Your task to perform on an android device: Open accessibility settings Image 0: 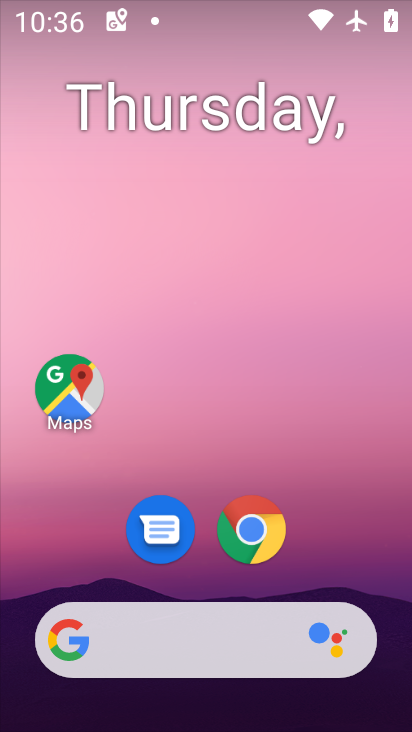
Step 0: drag from (328, 571) to (228, 46)
Your task to perform on an android device: Open accessibility settings Image 1: 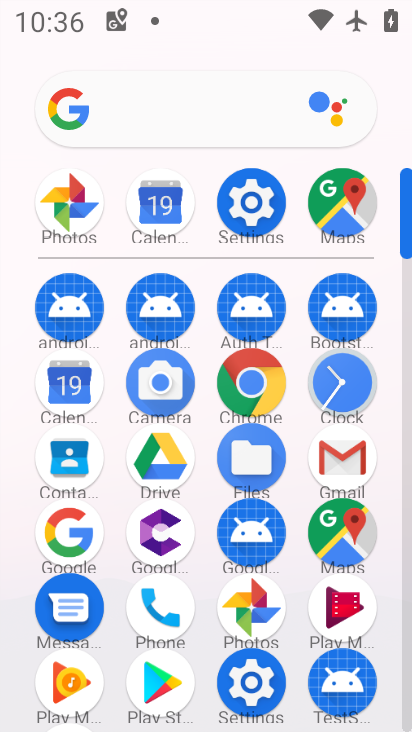
Step 1: click (248, 198)
Your task to perform on an android device: Open accessibility settings Image 2: 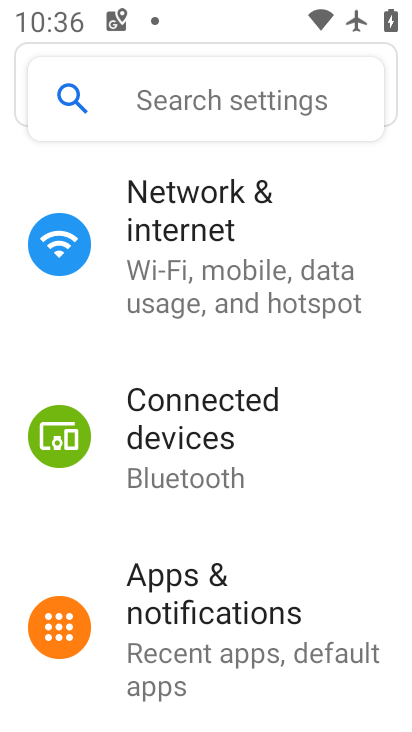
Step 2: drag from (193, 600) to (170, 294)
Your task to perform on an android device: Open accessibility settings Image 3: 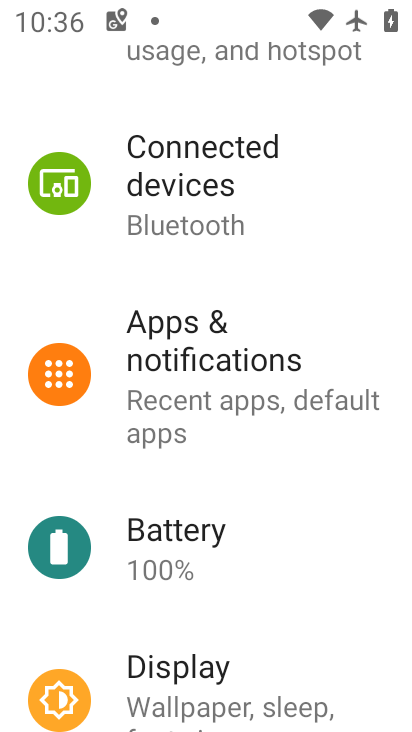
Step 3: drag from (214, 618) to (221, 407)
Your task to perform on an android device: Open accessibility settings Image 4: 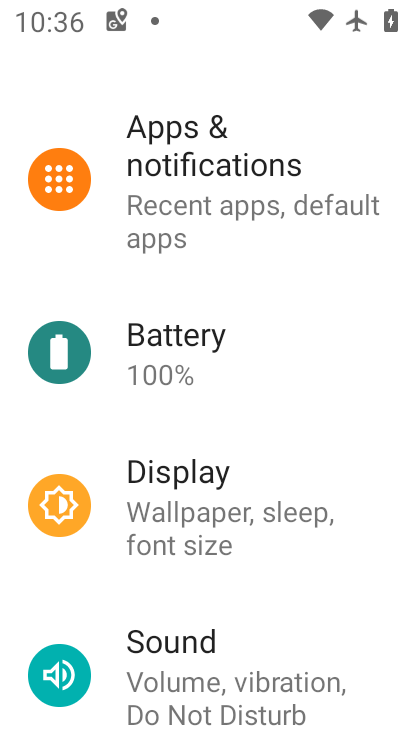
Step 4: drag from (224, 677) to (185, 474)
Your task to perform on an android device: Open accessibility settings Image 5: 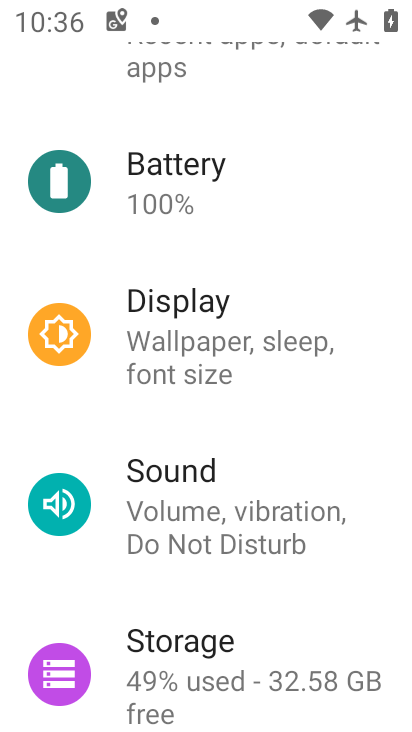
Step 5: drag from (188, 668) to (163, 449)
Your task to perform on an android device: Open accessibility settings Image 6: 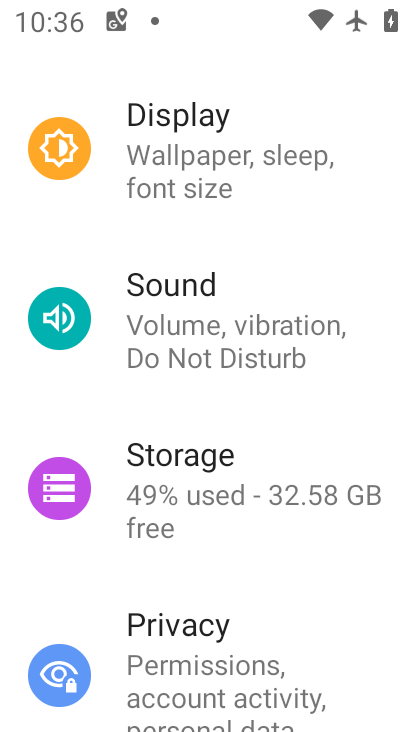
Step 6: drag from (201, 682) to (209, 475)
Your task to perform on an android device: Open accessibility settings Image 7: 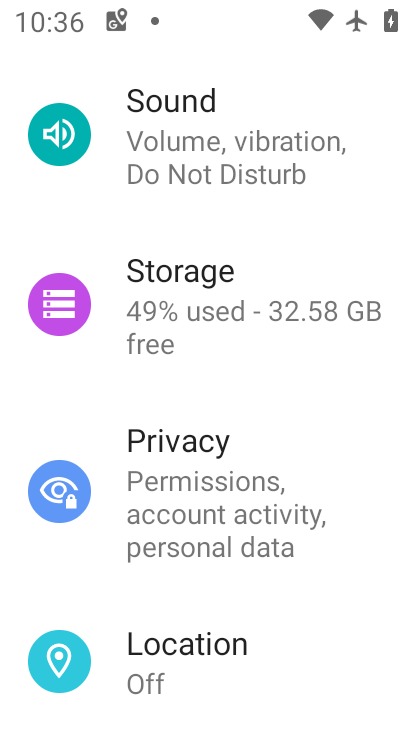
Step 7: drag from (231, 627) to (236, 397)
Your task to perform on an android device: Open accessibility settings Image 8: 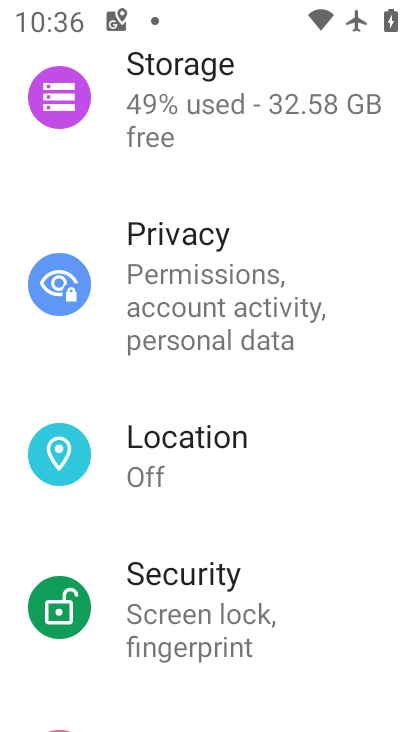
Step 8: drag from (269, 548) to (286, 328)
Your task to perform on an android device: Open accessibility settings Image 9: 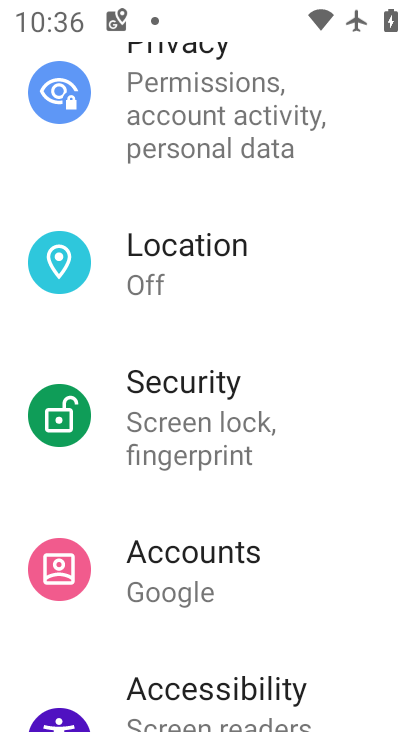
Step 9: drag from (241, 596) to (239, 204)
Your task to perform on an android device: Open accessibility settings Image 10: 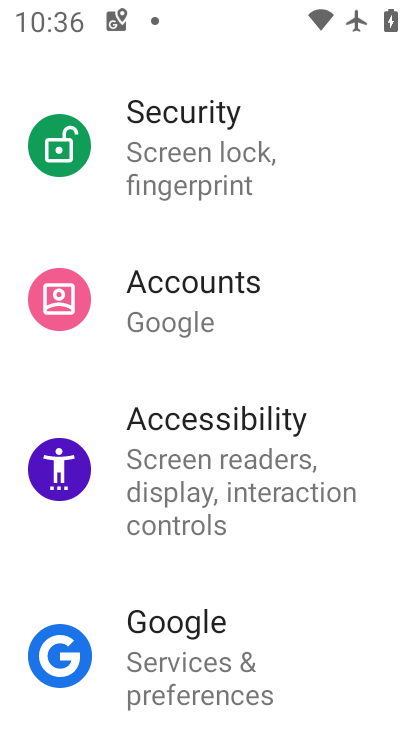
Step 10: drag from (137, 684) to (134, 528)
Your task to perform on an android device: Open accessibility settings Image 11: 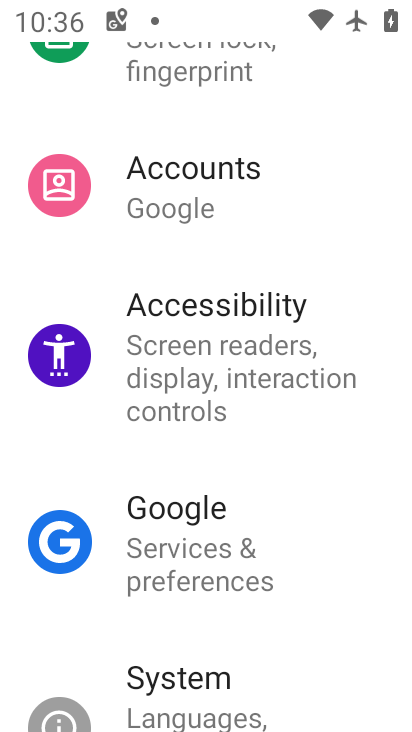
Step 11: click (209, 377)
Your task to perform on an android device: Open accessibility settings Image 12: 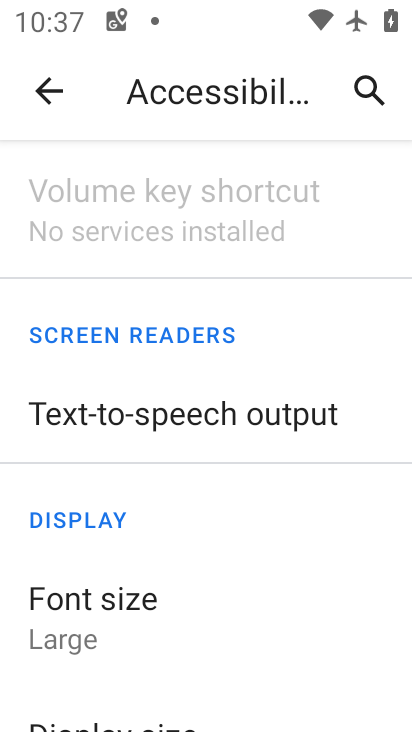
Step 12: task complete